Your task to perform on an android device: check the backup settings in the google photos Image 0: 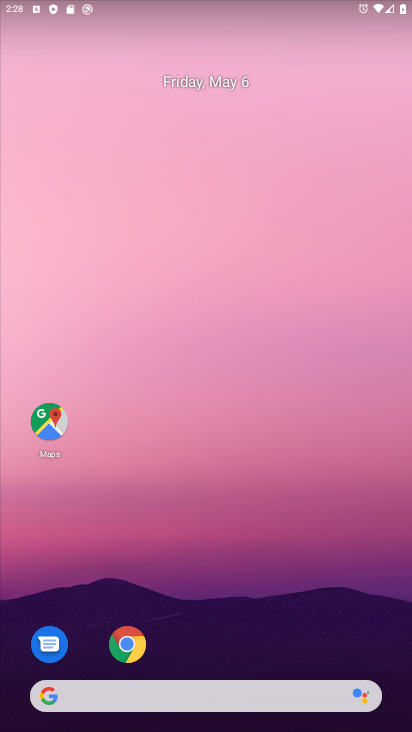
Step 0: press home button
Your task to perform on an android device: check the backup settings in the google photos Image 1: 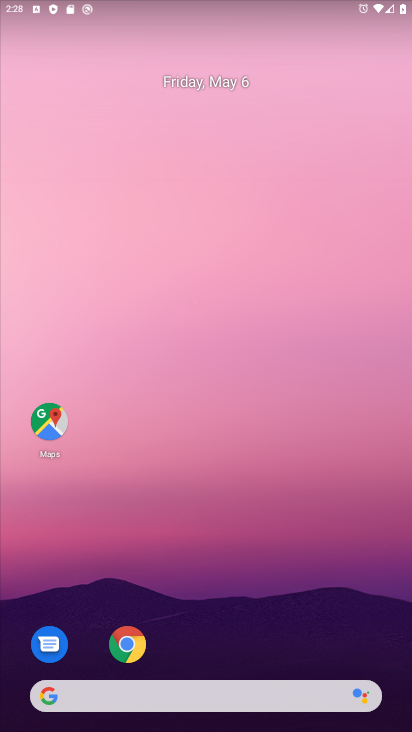
Step 1: drag from (249, 720) to (251, 67)
Your task to perform on an android device: check the backup settings in the google photos Image 2: 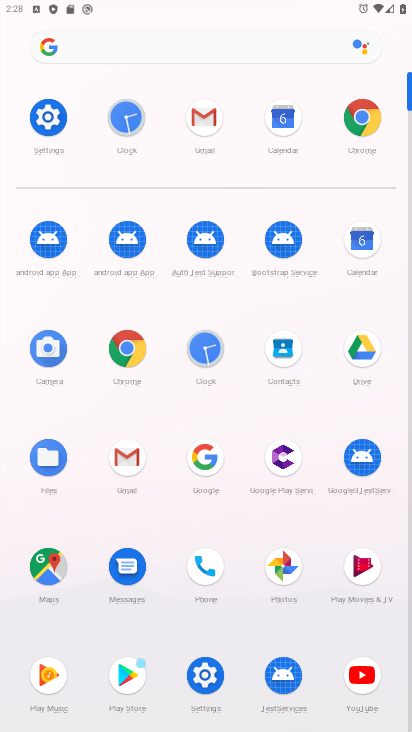
Step 2: click (274, 569)
Your task to perform on an android device: check the backup settings in the google photos Image 3: 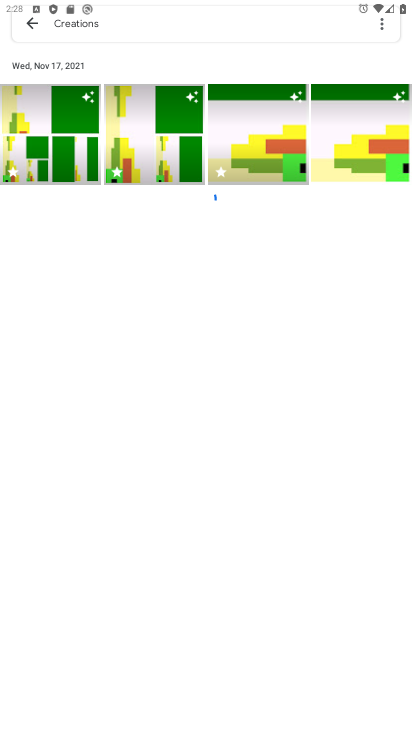
Step 3: click (33, 19)
Your task to perform on an android device: check the backup settings in the google photos Image 4: 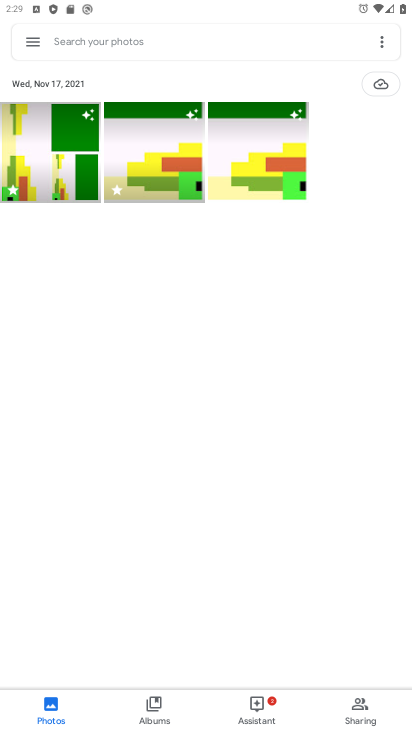
Step 4: click (24, 38)
Your task to perform on an android device: check the backup settings in the google photos Image 5: 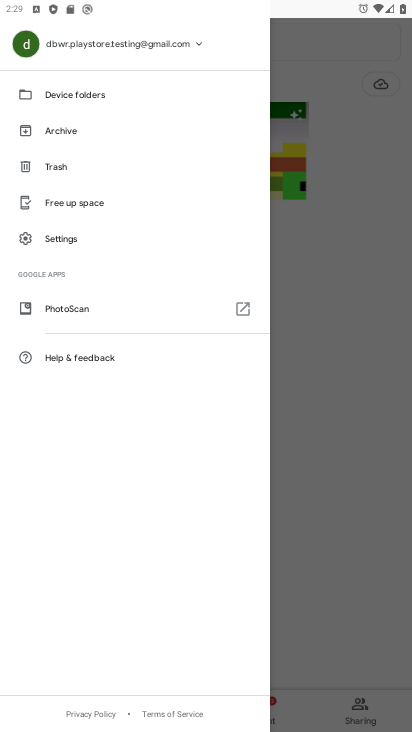
Step 5: click (89, 228)
Your task to perform on an android device: check the backup settings in the google photos Image 6: 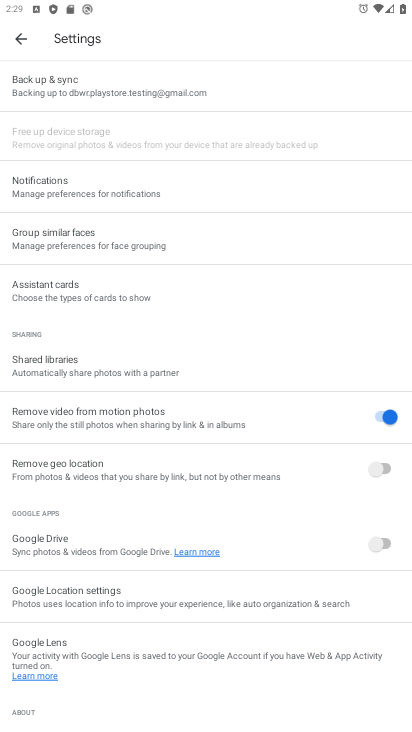
Step 6: click (171, 94)
Your task to perform on an android device: check the backup settings in the google photos Image 7: 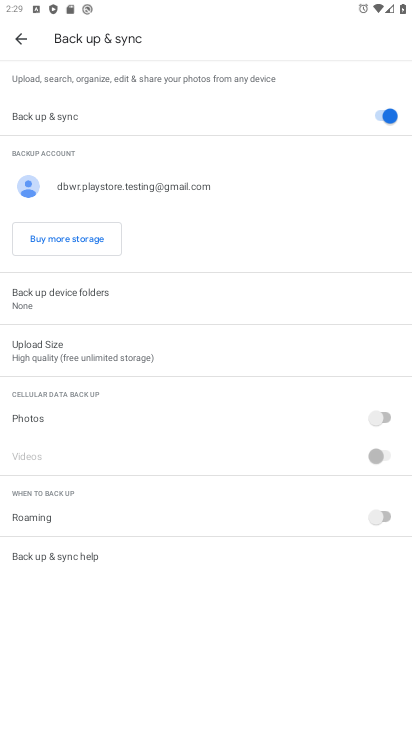
Step 7: task complete